Your task to perform on an android device: Open display settings Image 0: 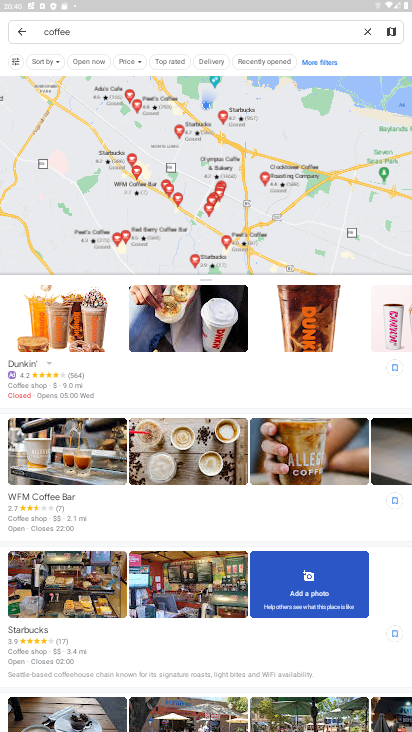
Step 0: press home button
Your task to perform on an android device: Open display settings Image 1: 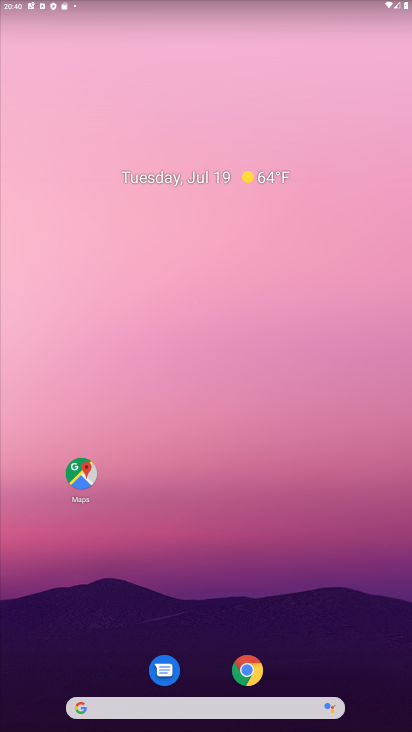
Step 1: drag from (247, 722) to (229, 37)
Your task to perform on an android device: Open display settings Image 2: 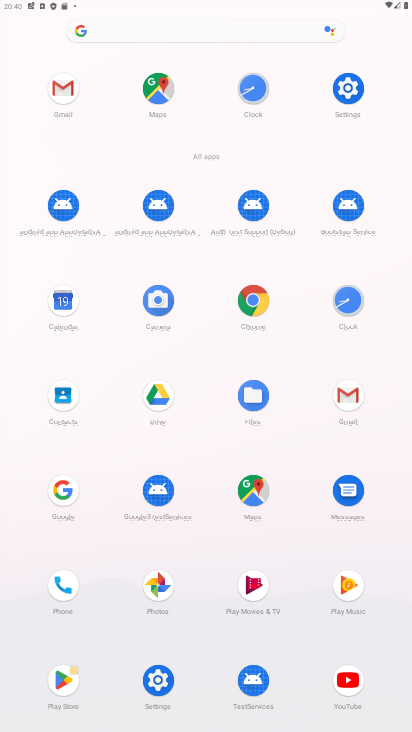
Step 2: click (346, 84)
Your task to perform on an android device: Open display settings Image 3: 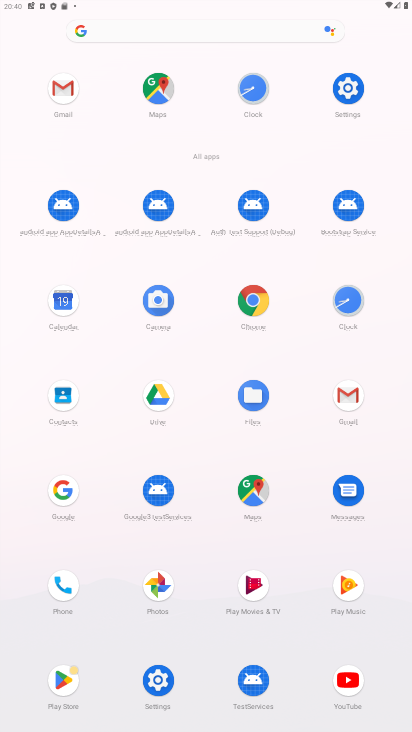
Step 3: click (346, 84)
Your task to perform on an android device: Open display settings Image 4: 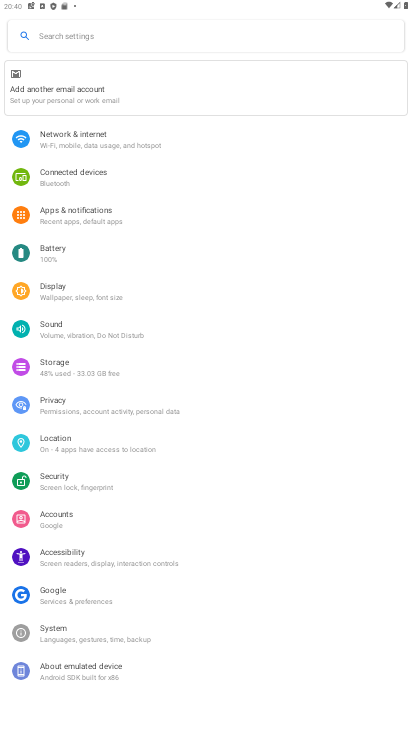
Step 4: click (64, 288)
Your task to perform on an android device: Open display settings Image 5: 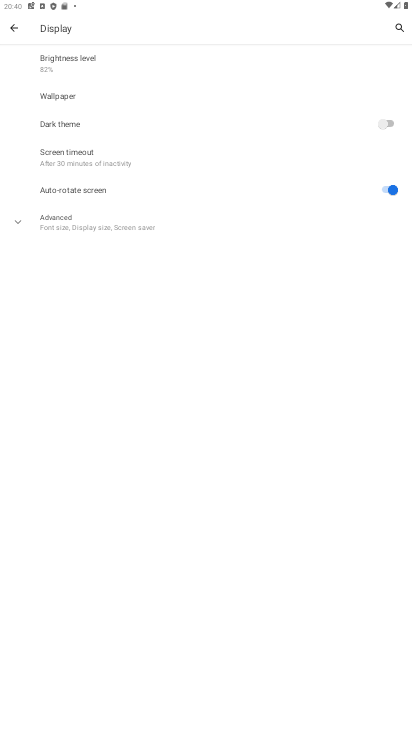
Step 5: task complete